Your task to perform on an android device: set the stopwatch Image 0: 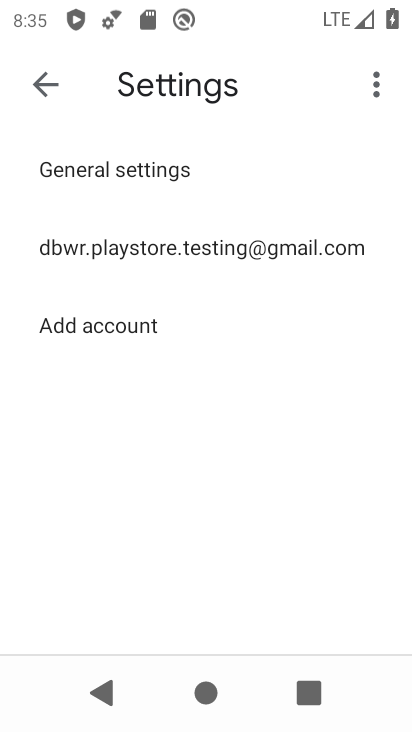
Step 0: click (234, 282)
Your task to perform on an android device: set the stopwatch Image 1: 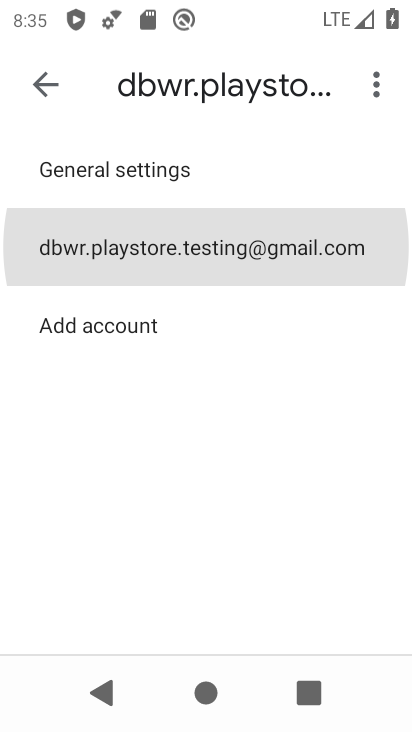
Step 1: press home button
Your task to perform on an android device: set the stopwatch Image 2: 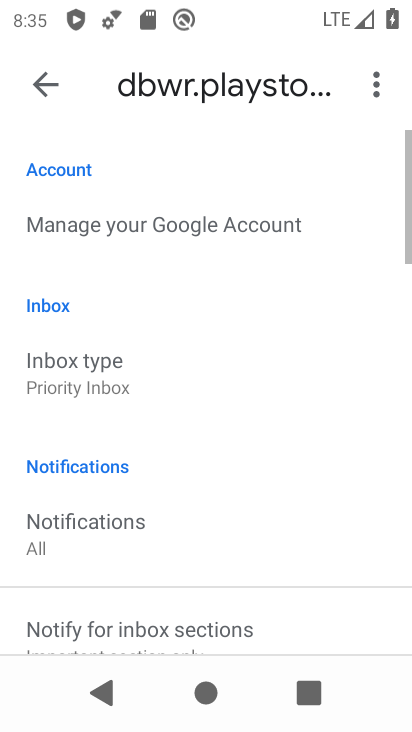
Step 2: click (275, 42)
Your task to perform on an android device: set the stopwatch Image 3: 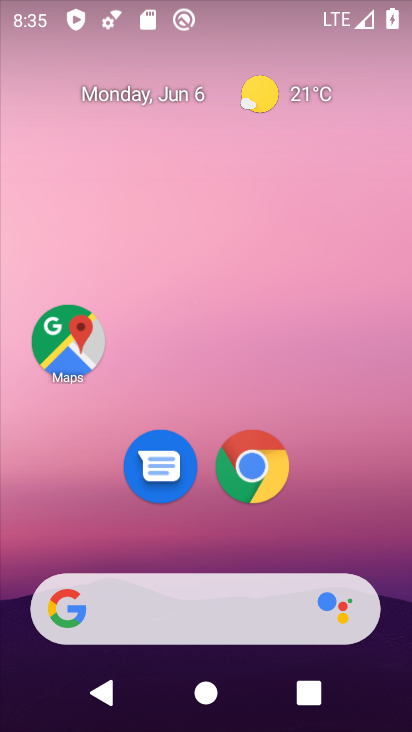
Step 3: drag from (211, 516) to (258, 12)
Your task to perform on an android device: set the stopwatch Image 4: 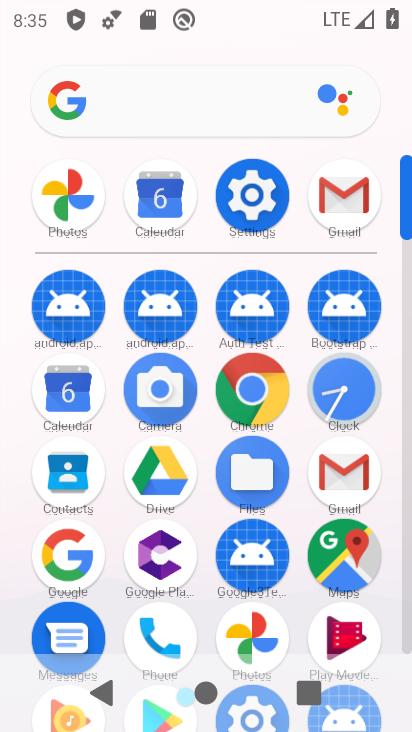
Step 4: click (345, 390)
Your task to perform on an android device: set the stopwatch Image 5: 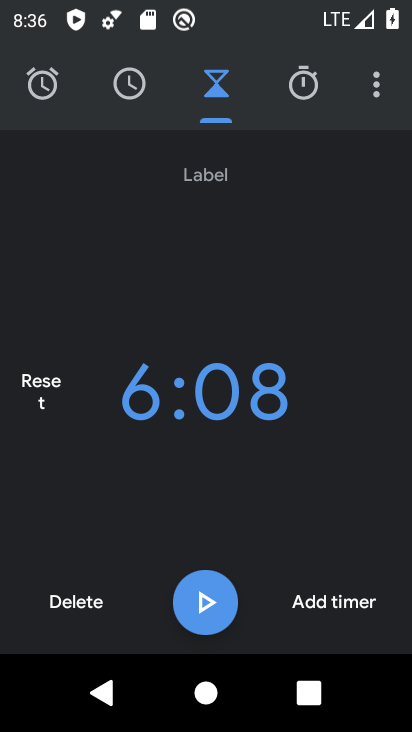
Step 5: click (295, 94)
Your task to perform on an android device: set the stopwatch Image 6: 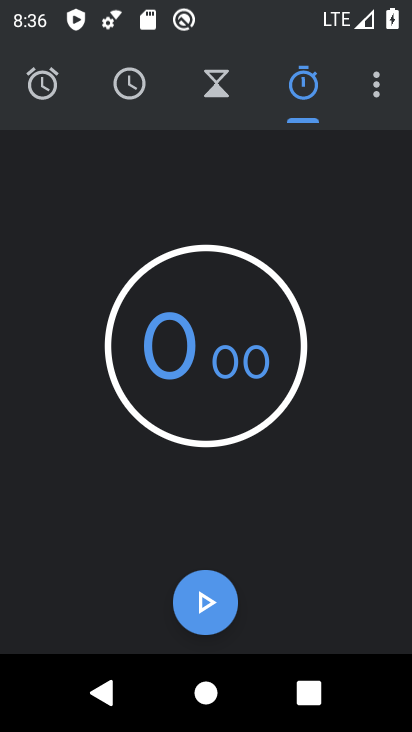
Step 6: drag from (233, 414) to (260, 261)
Your task to perform on an android device: set the stopwatch Image 7: 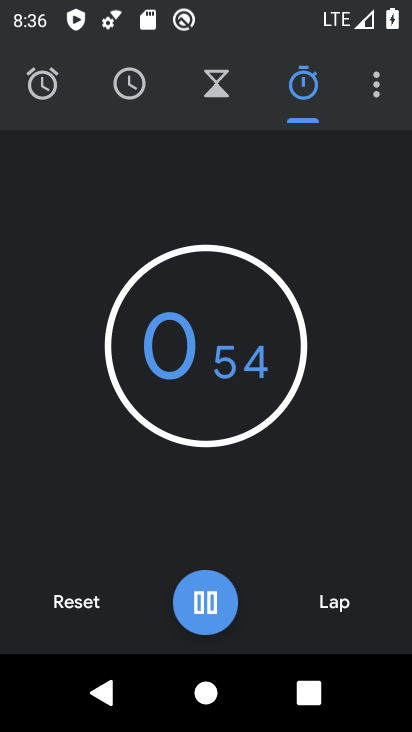
Step 7: click (210, 592)
Your task to perform on an android device: set the stopwatch Image 8: 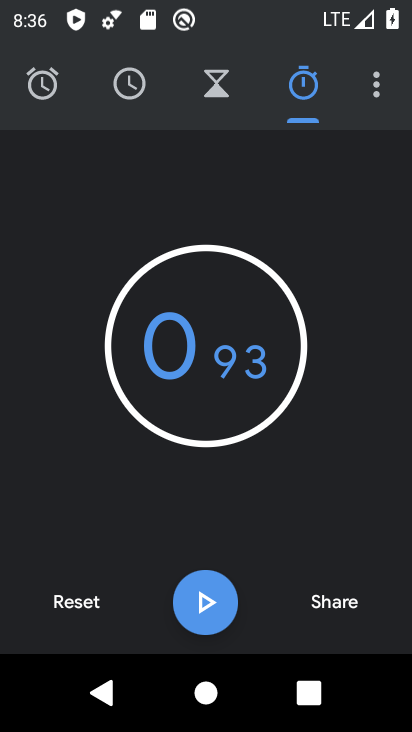
Step 8: click (75, 614)
Your task to perform on an android device: set the stopwatch Image 9: 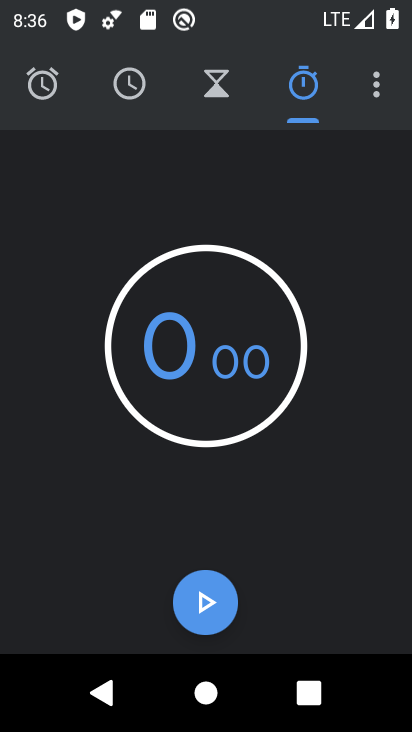
Step 9: click (219, 626)
Your task to perform on an android device: set the stopwatch Image 10: 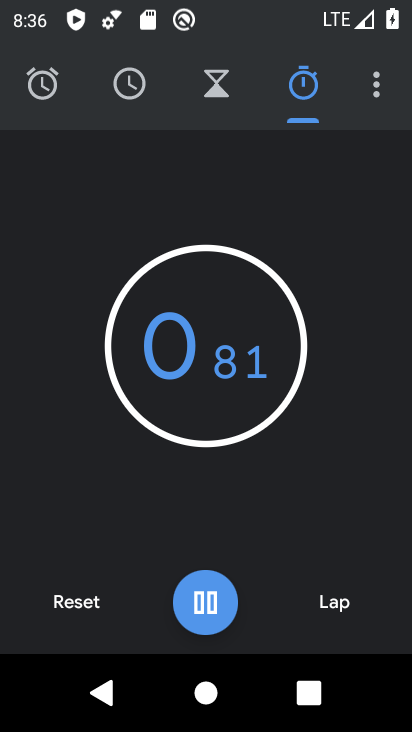
Step 10: task complete